Your task to perform on an android device: read, delete, or share a saved page in the chrome app Image 0: 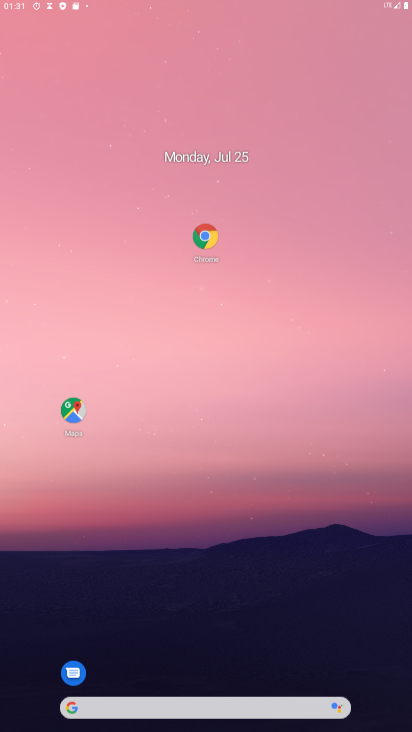
Step 0: drag from (302, 433) to (320, 665)
Your task to perform on an android device: read, delete, or share a saved page in the chrome app Image 1: 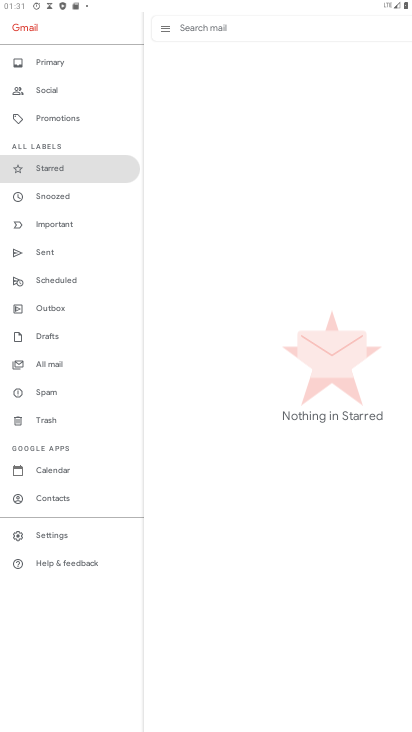
Step 1: press home button
Your task to perform on an android device: read, delete, or share a saved page in the chrome app Image 2: 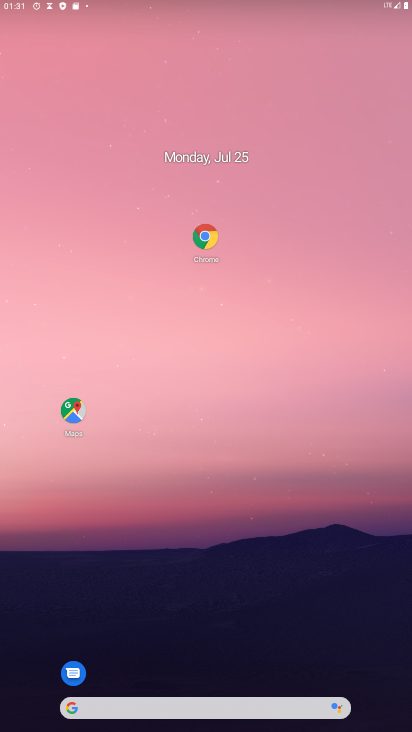
Step 2: drag from (288, 694) to (353, 251)
Your task to perform on an android device: read, delete, or share a saved page in the chrome app Image 3: 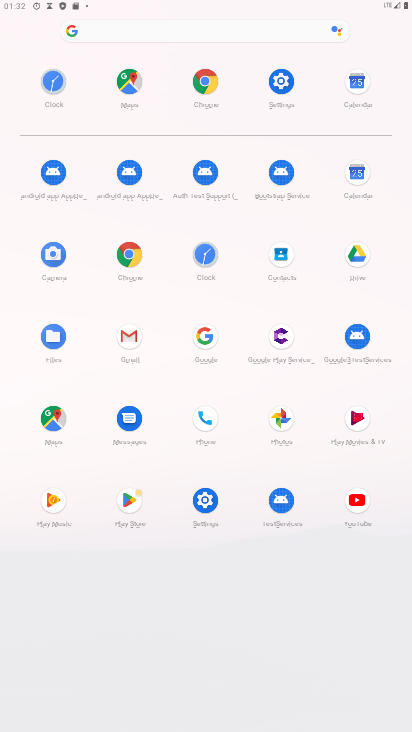
Step 3: click (203, 76)
Your task to perform on an android device: read, delete, or share a saved page in the chrome app Image 4: 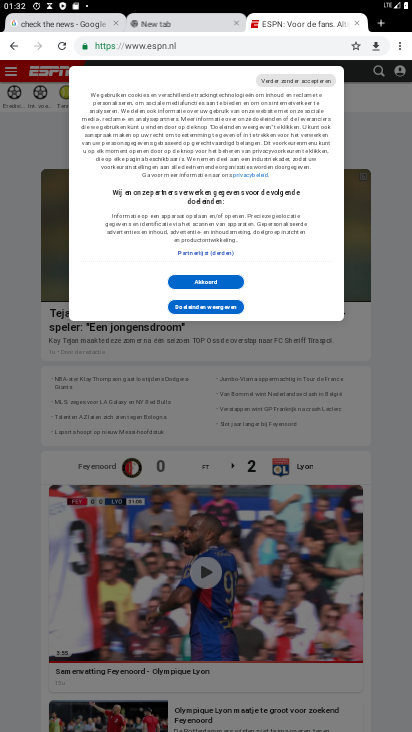
Step 4: task complete